Your task to perform on an android device: toggle airplane mode Image 0: 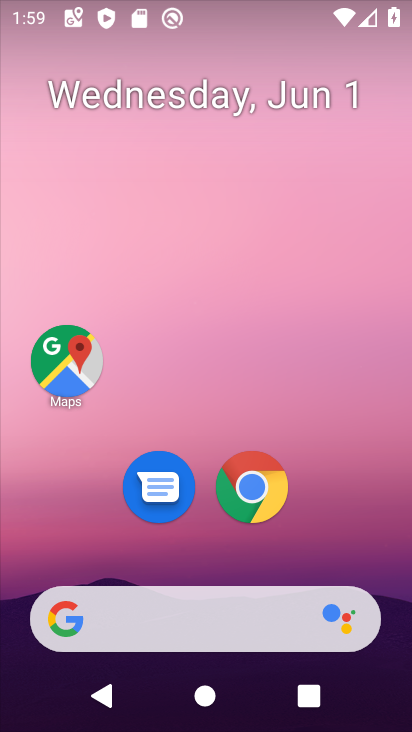
Step 0: drag from (363, 553) to (387, 133)
Your task to perform on an android device: toggle airplane mode Image 1: 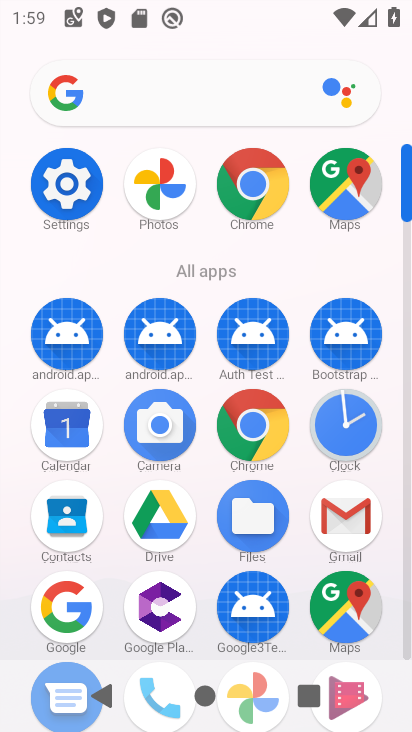
Step 1: click (77, 207)
Your task to perform on an android device: toggle airplane mode Image 2: 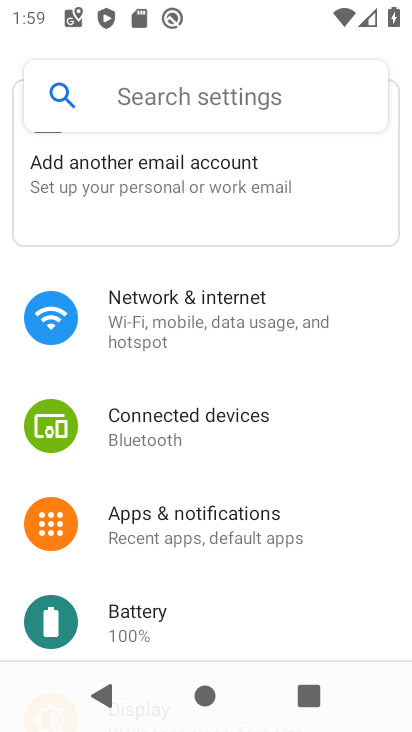
Step 2: drag from (361, 537) to (359, 402)
Your task to perform on an android device: toggle airplane mode Image 3: 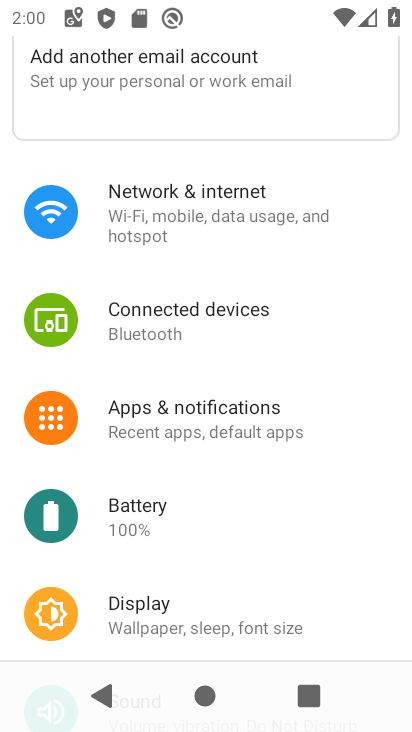
Step 3: drag from (353, 555) to (349, 434)
Your task to perform on an android device: toggle airplane mode Image 4: 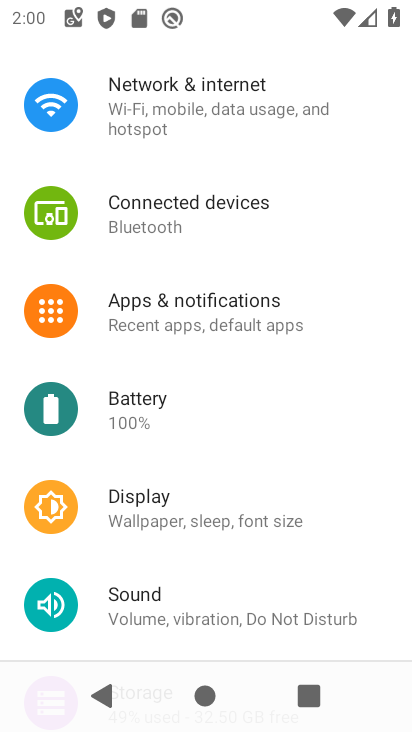
Step 4: drag from (343, 444) to (343, 341)
Your task to perform on an android device: toggle airplane mode Image 5: 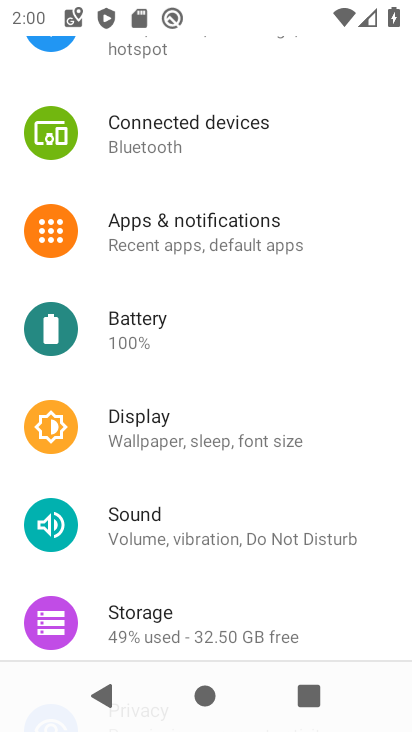
Step 5: drag from (308, 496) to (330, 351)
Your task to perform on an android device: toggle airplane mode Image 6: 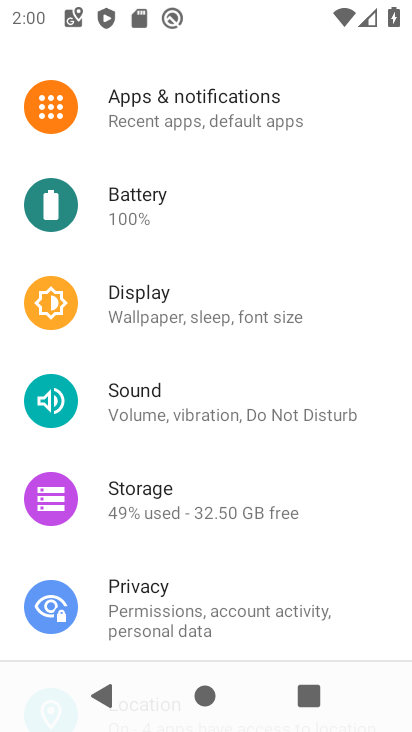
Step 6: drag from (320, 518) to (334, 375)
Your task to perform on an android device: toggle airplane mode Image 7: 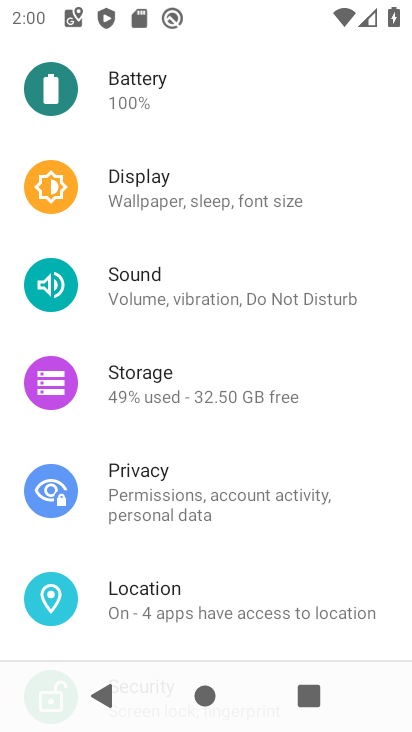
Step 7: drag from (315, 516) to (338, 333)
Your task to perform on an android device: toggle airplane mode Image 8: 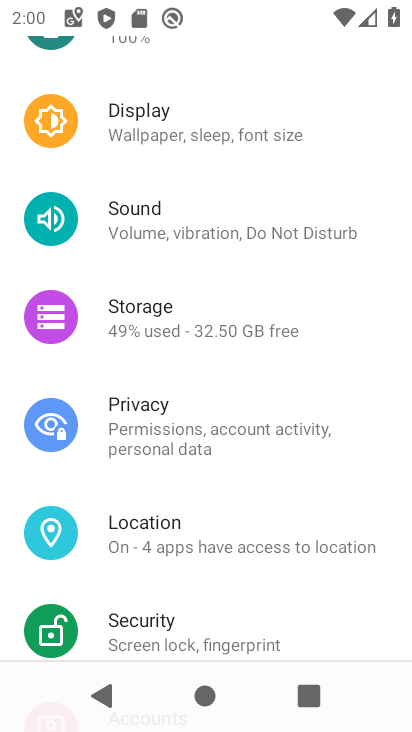
Step 8: drag from (333, 541) to (338, 361)
Your task to perform on an android device: toggle airplane mode Image 9: 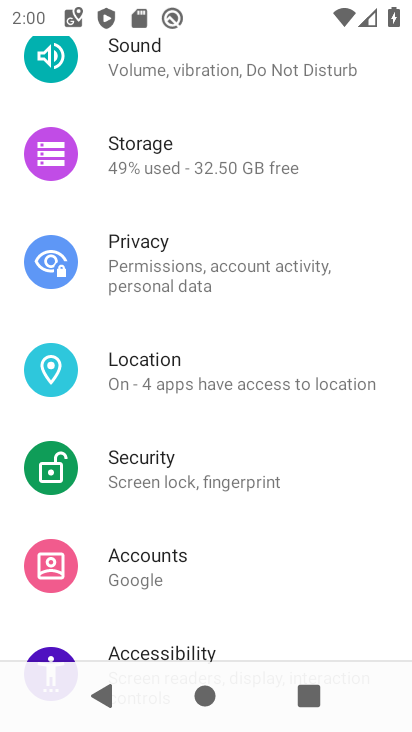
Step 9: drag from (337, 554) to (349, 358)
Your task to perform on an android device: toggle airplane mode Image 10: 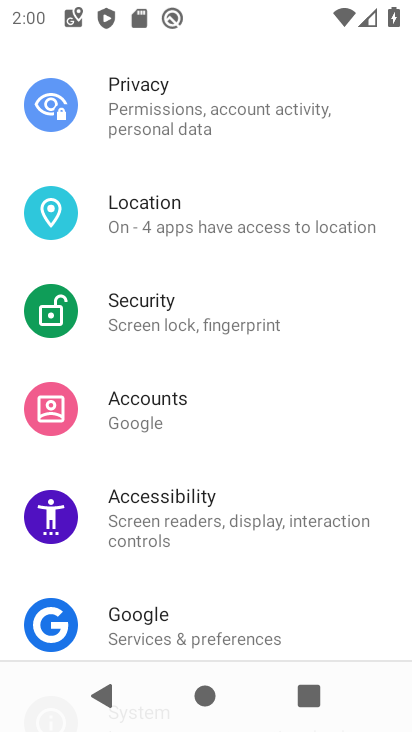
Step 10: drag from (326, 566) to (328, 278)
Your task to perform on an android device: toggle airplane mode Image 11: 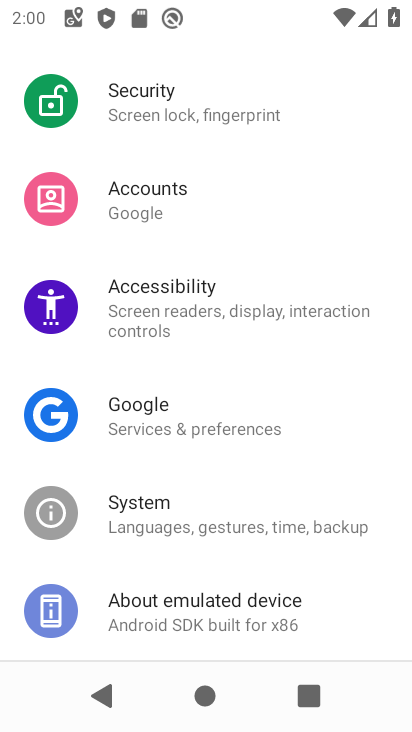
Step 11: drag from (319, 401) to (325, 213)
Your task to perform on an android device: toggle airplane mode Image 12: 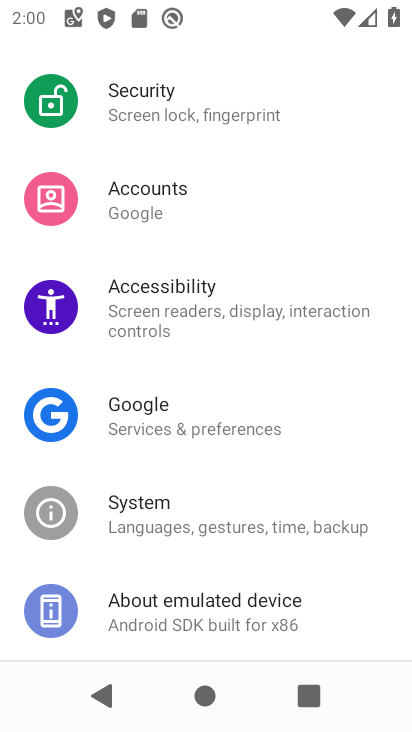
Step 12: drag from (323, 226) to (293, 446)
Your task to perform on an android device: toggle airplane mode Image 13: 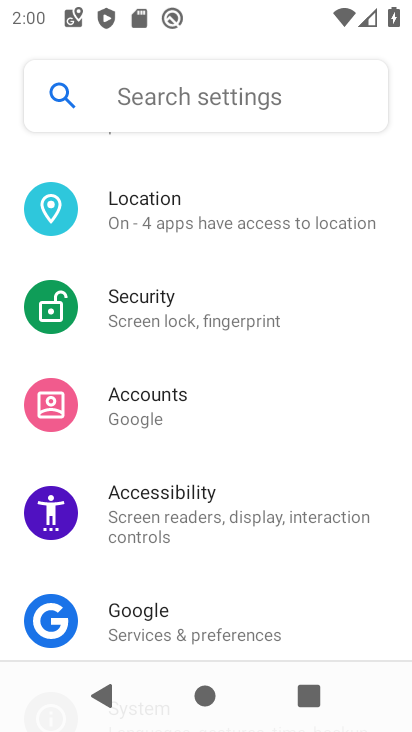
Step 13: drag from (306, 246) to (306, 414)
Your task to perform on an android device: toggle airplane mode Image 14: 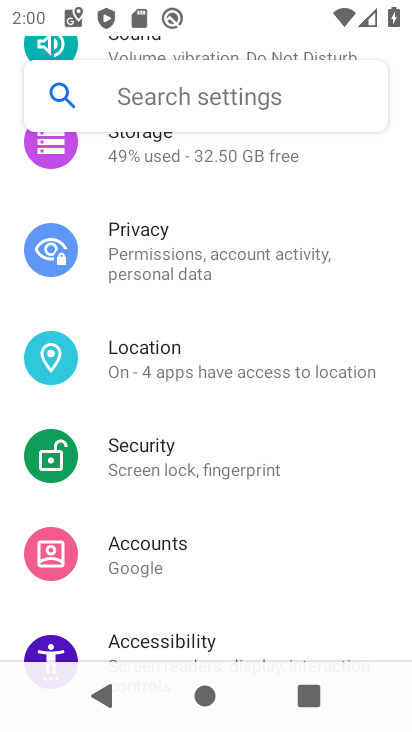
Step 14: drag from (338, 223) to (331, 358)
Your task to perform on an android device: toggle airplane mode Image 15: 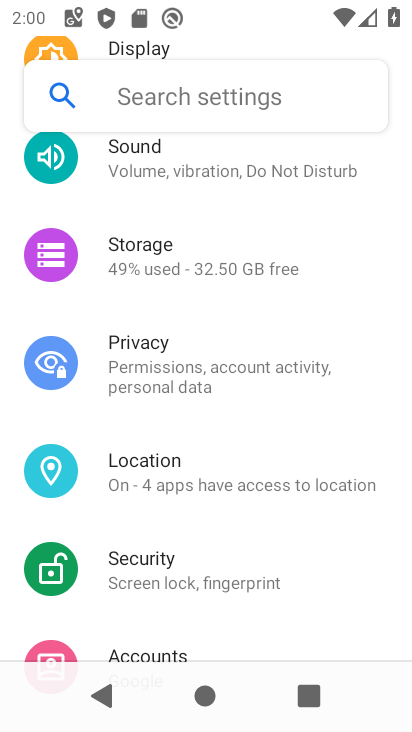
Step 15: drag from (344, 217) to (327, 331)
Your task to perform on an android device: toggle airplane mode Image 16: 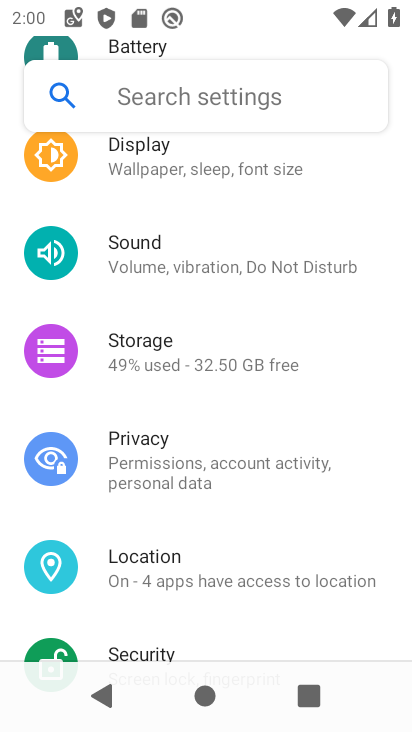
Step 16: drag from (314, 221) to (294, 439)
Your task to perform on an android device: toggle airplane mode Image 17: 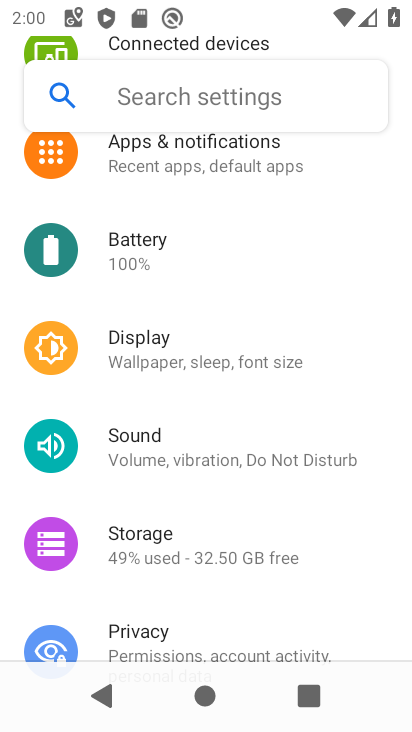
Step 17: drag from (299, 229) to (285, 392)
Your task to perform on an android device: toggle airplane mode Image 18: 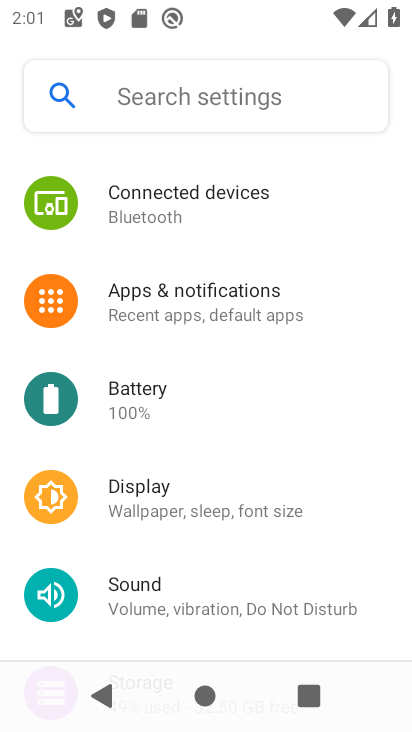
Step 18: drag from (310, 202) to (302, 382)
Your task to perform on an android device: toggle airplane mode Image 19: 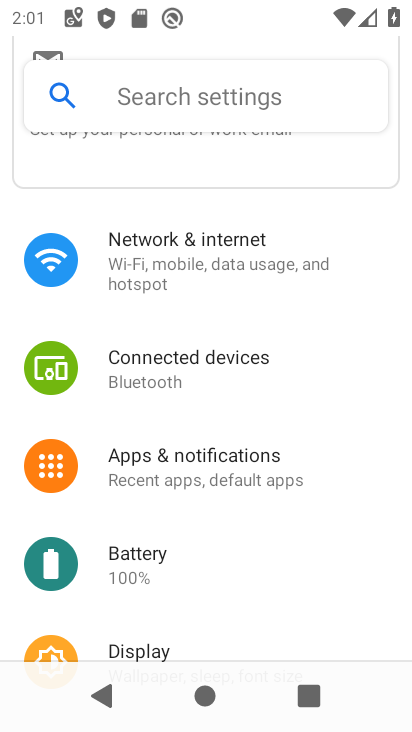
Step 19: click (245, 258)
Your task to perform on an android device: toggle airplane mode Image 20: 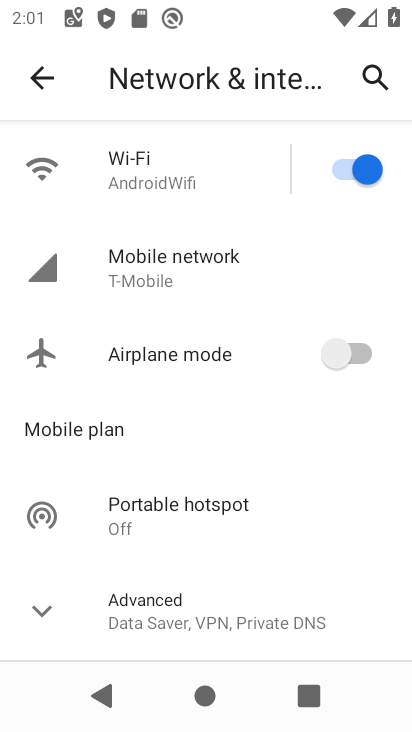
Step 20: click (336, 361)
Your task to perform on an android device: toggle airplane mode Image 21: 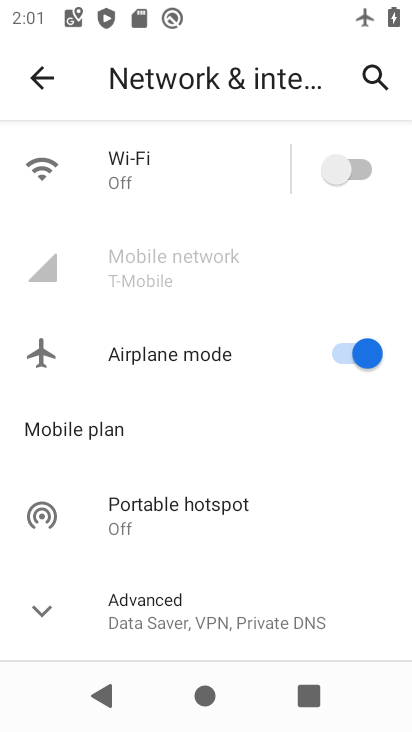
Step 21: task complete